Your task to perform on an android device: Go to network settings Image 0: 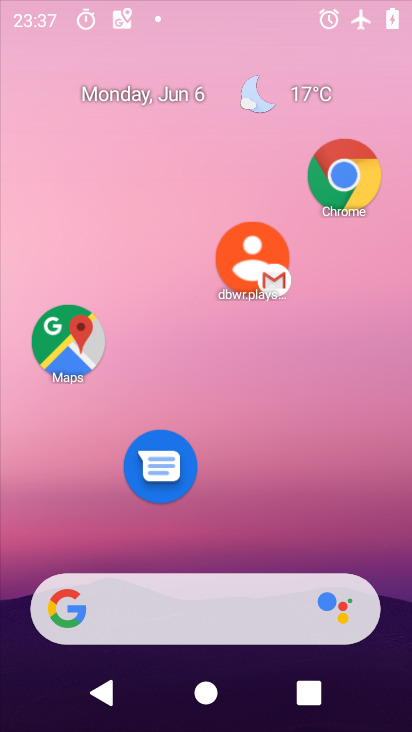
Step 0: drag from (230, 558) to (232, 189)
Your task to perform on an android device: Go to network settings Image 1: 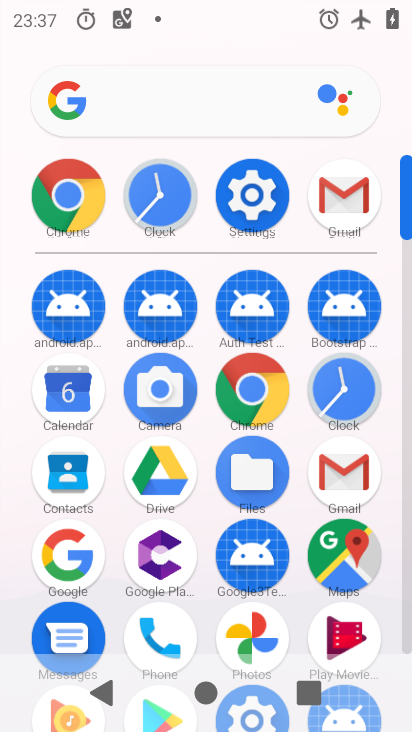
Step 1: click (256, 200)
Your task to perform on an android device: Go to network settings Image 2: 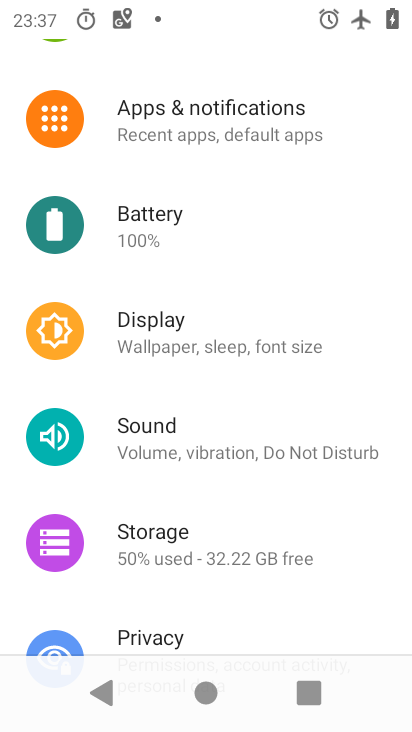
Step 2: drag from (269, 123) to (259, 714)
Your task to perform on an android device: Go to network settings Image 3: 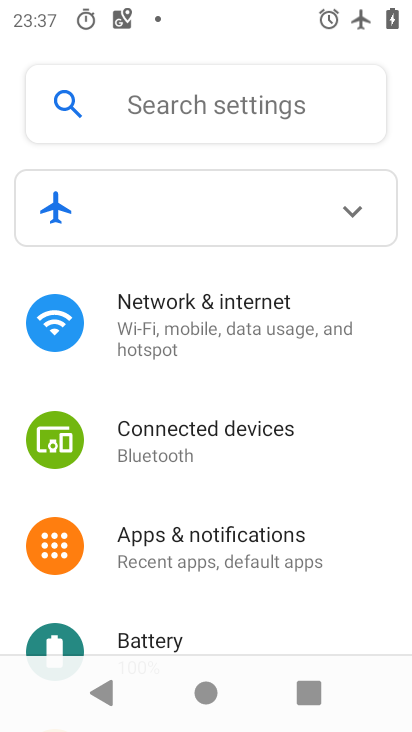
Step 3: click (200, 325)
Your task to perform on an android device: Go to network settings Image 4: 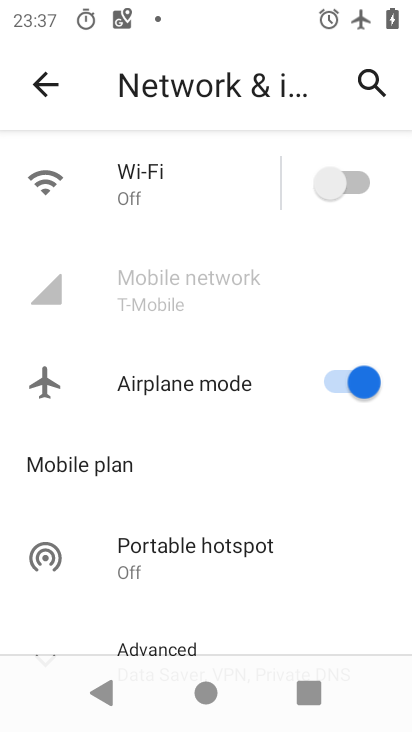
Step 4: task complete